Your task to perform on an android device: Show me productivity apps on the Play Store Image 0: 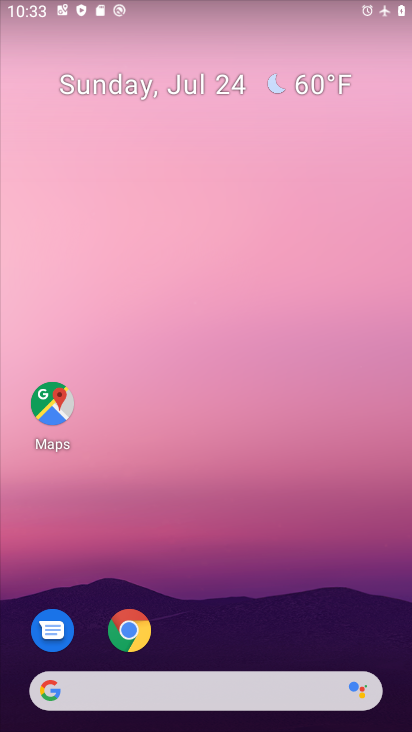
Step 0: drag from (208, 619) to (237, 14)
Your task to perform on an android device: Show me productivity apps on the Play Store Image 1: 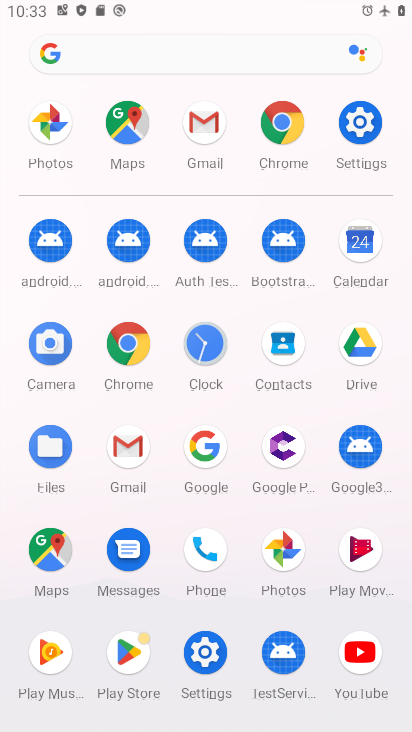
Step 1: click (132, 663)
Your task to perform on an android device: Show me productivity apps on the Play Store Image 2: 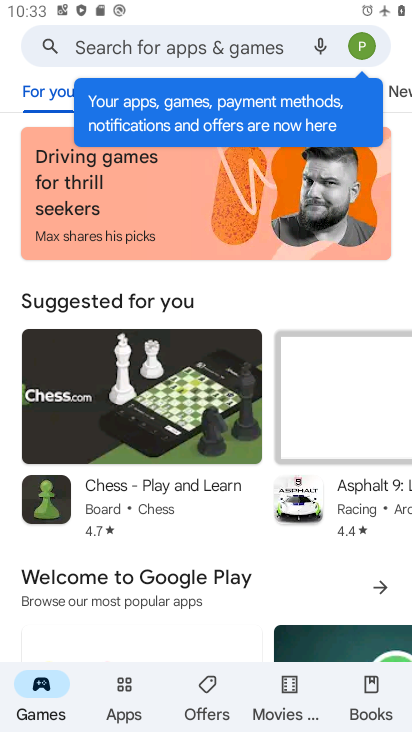
Step 2: click (118, 700)
Your task to perform on an android device: Show me productivity apps on the Play Store Image 3: 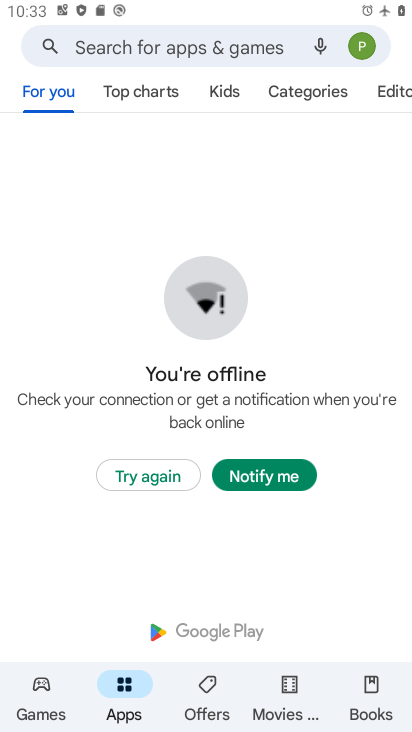
Step 3: click (158, 491)
Your task to perform on an android device: Show me productivity apps on the Play Store Image 4: 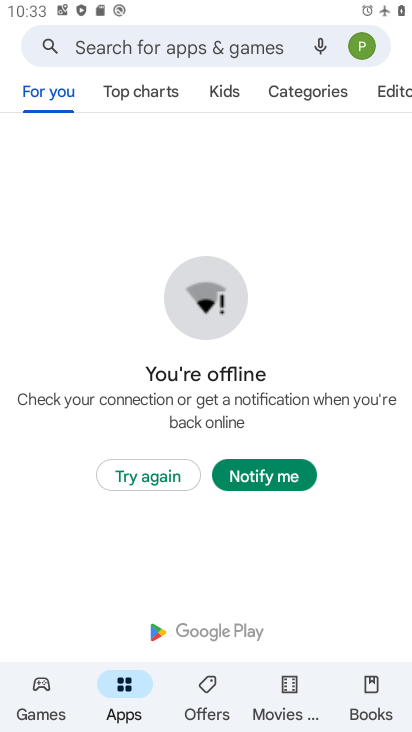
Step 4: click (316, 91)
Your task to perform on an android device: Show me productivity apps on the Play Store Image 5: 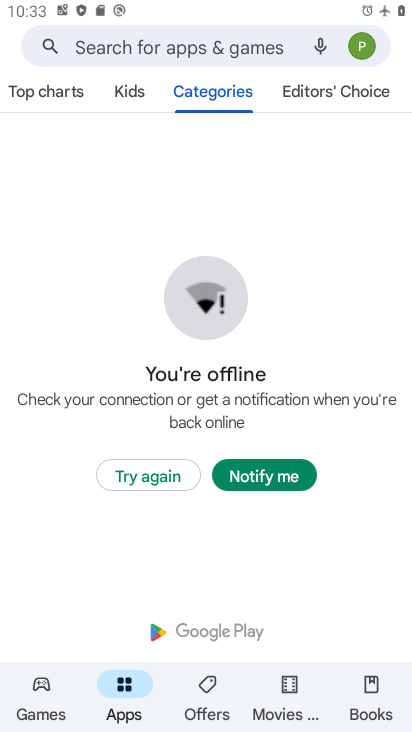
Step 5: task complete